Your task to perform on an android device: toggle location history Image 0: 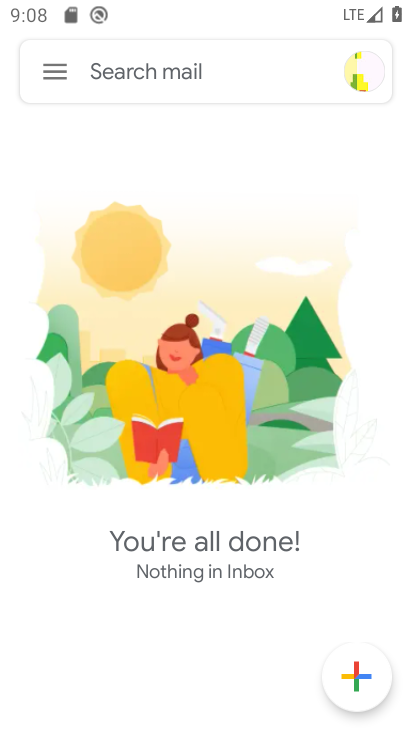
Step 0: press home button
Your task to perform on an android device: toggle location history Image 1: 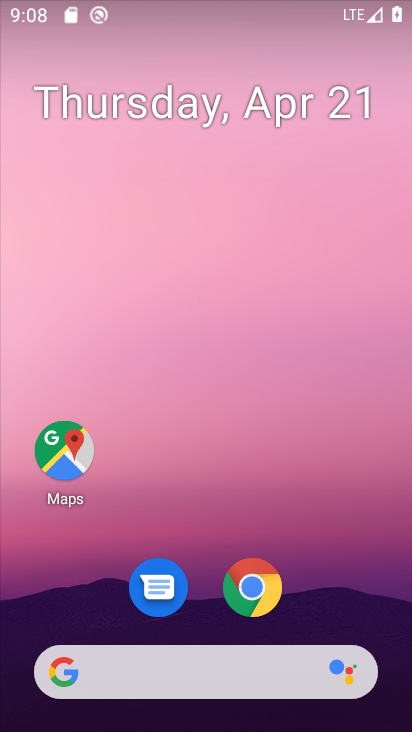
Step 1: drag from (372, 458) to (366, 264)
Your task to perform on an android device: toggle location history Image 2: 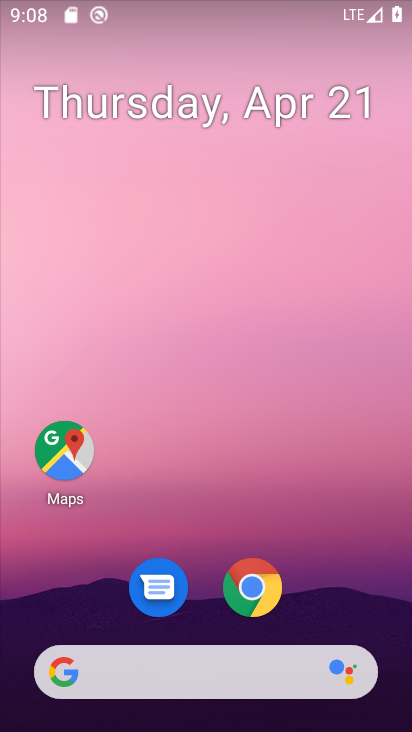
Step 2: drag from (355, 462) to (324, 178)
Your task to perform on an android device: toggle location history Image 3: 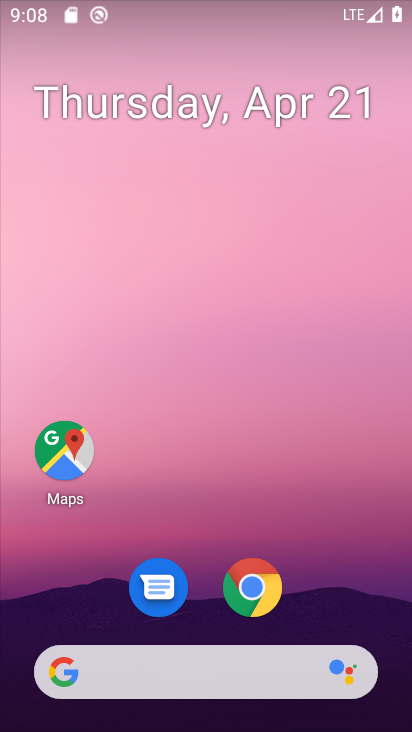
Step 3: click (370, 211)
Your task to perform on an android device: toggle location history Image 4: 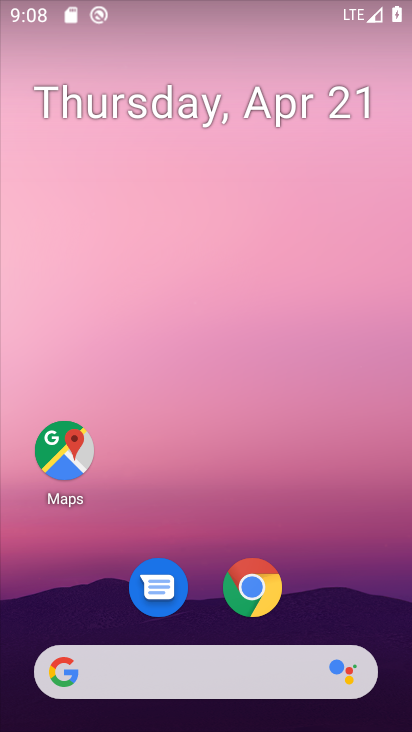
Step 4: drag from (356, 132) to (350, 95)
Your task to perform on an android device: toggle location history Image 5: 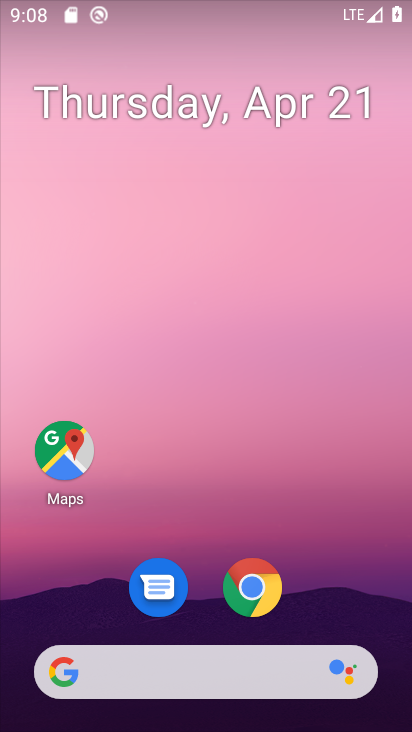
Step 5: drag from (373, 553) to (344, 194)
Your task to perform on an android device: toggle location history Image 6: 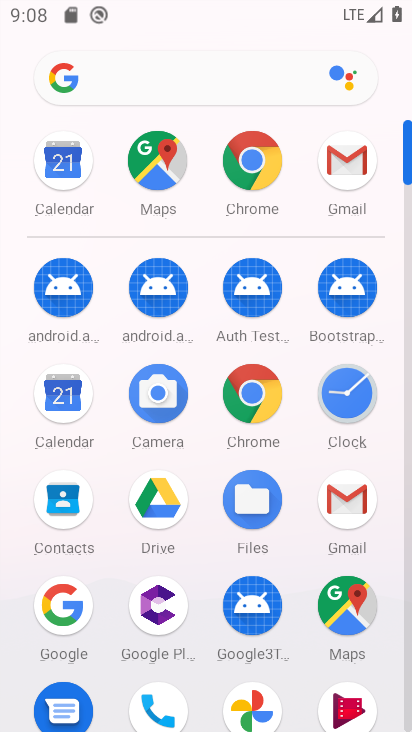
Step 6: drag from (407, 124) to (398, 72)
Your task to perform on an android device: toggle location history Image 7: 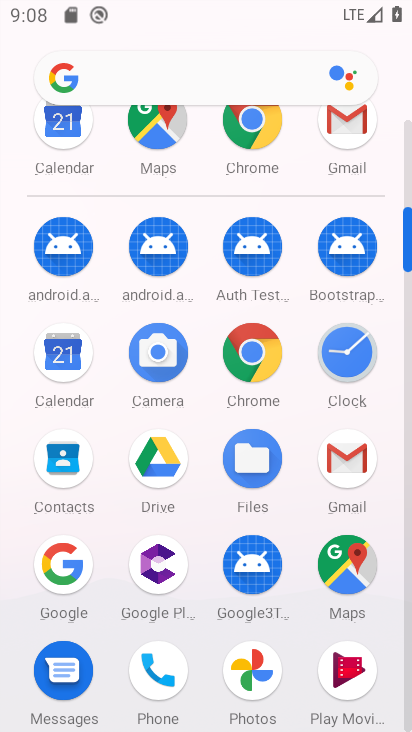
Step 7: drag from (407, 220) to (391, 134)
Your task to perform on an android device: toggle location history Image 8: 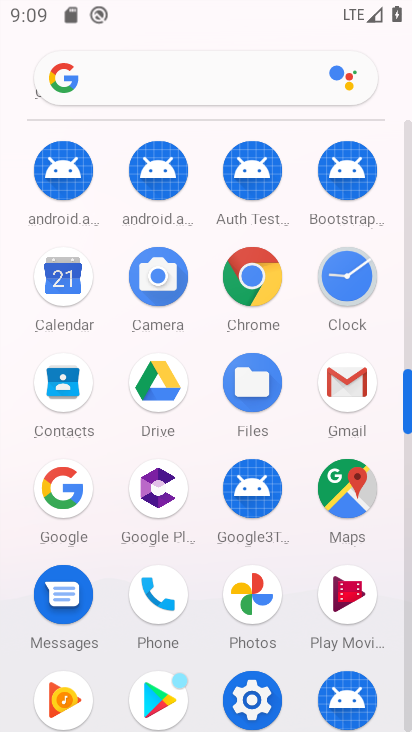
Step 8: click (250, 688)
Your task to perform on an android device: toggle location history Image 9: 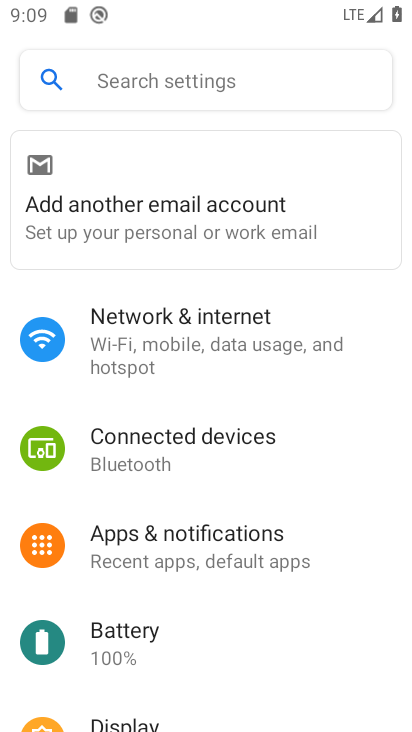
Step 9: drag from (372, 640) to (351, 258)
Your task to perform on an android device: toggle location history Image 10: 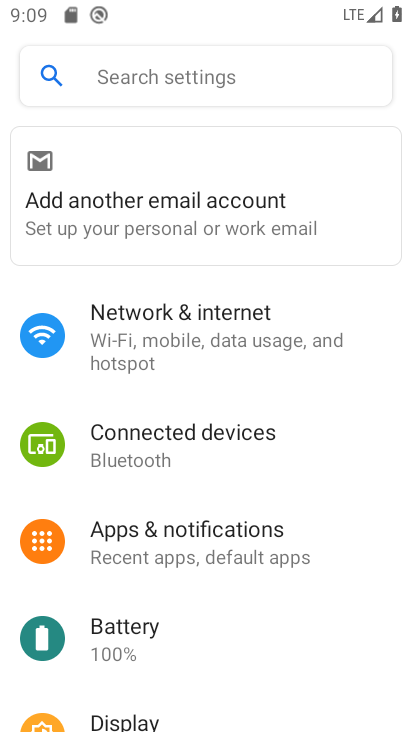
Step 10: drag from (354, 475) to (364, 308)
Your task to perform on an android device: toggle location history Image 11: 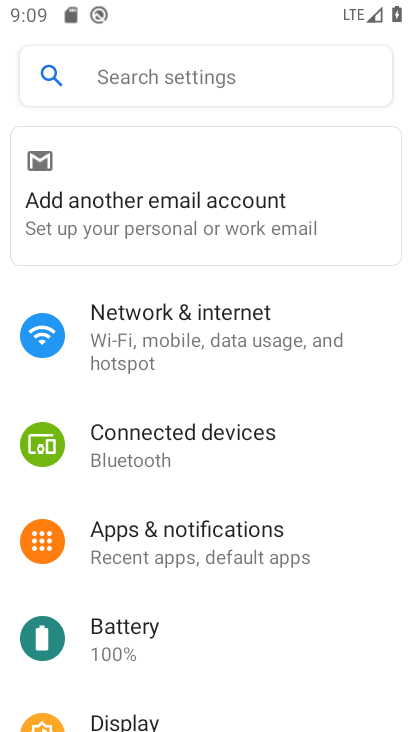
Step 11: drag from (353, 684) to (384, 234)
Your task to perform on an android device: toggle location history Image 12: 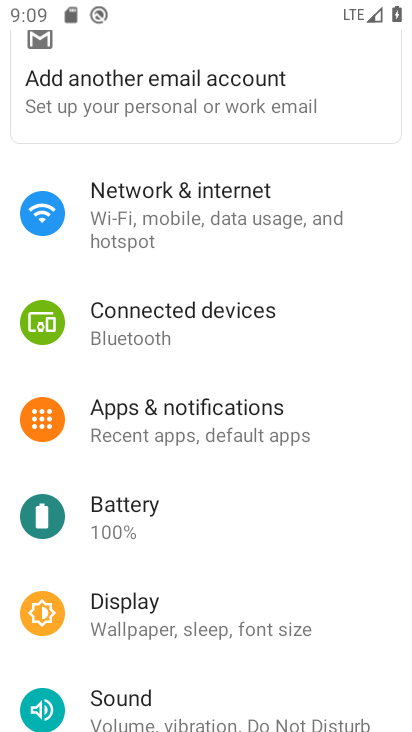
Step 12: drag from (372, 616) to (379, 243)
Your task to perform on an android device: toggle location history Image 13: 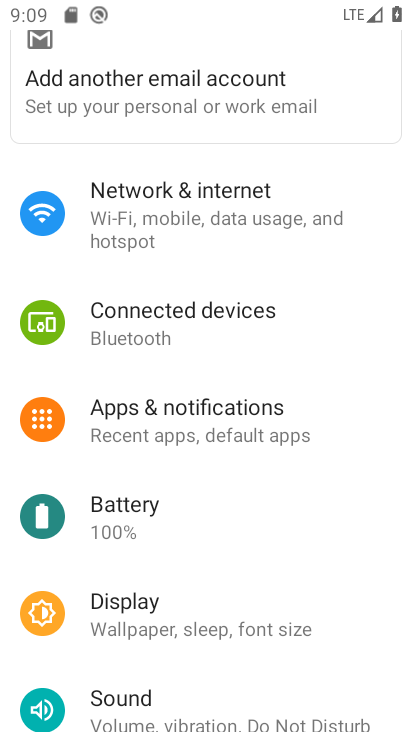
Step 13: drag from (372, 556) to (362, 291)
Your task to perform on an android device: toggle location history Image 14: 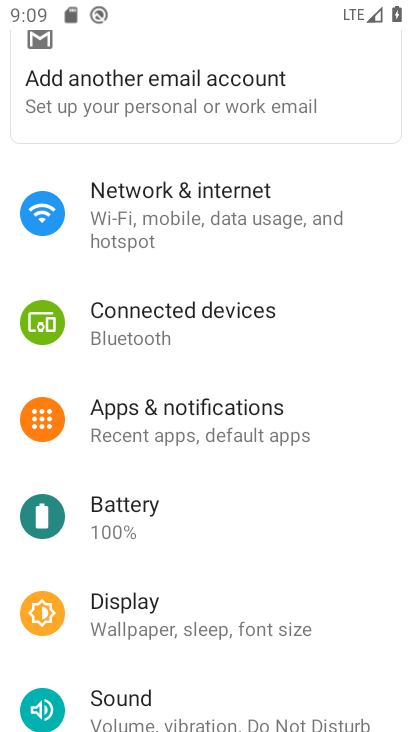
Step 14: drag from (388, 678) to (387, 311)
Your task to perform on an android device: toggle location history Image 15: 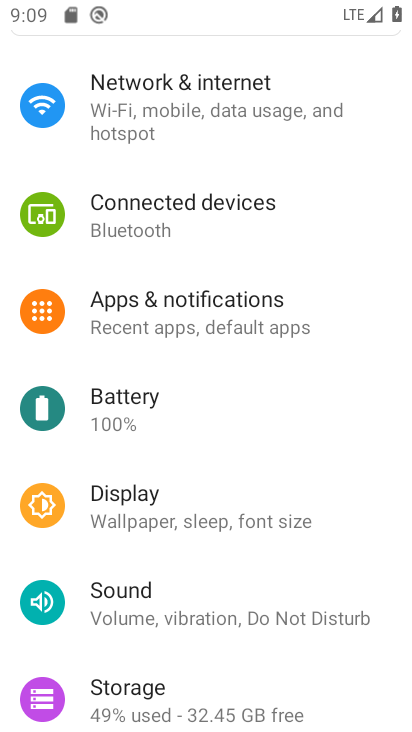
Step 15: drag from (373, 583) to (361, 226)
Your task to perform on an android device: toggle location history Image 16: 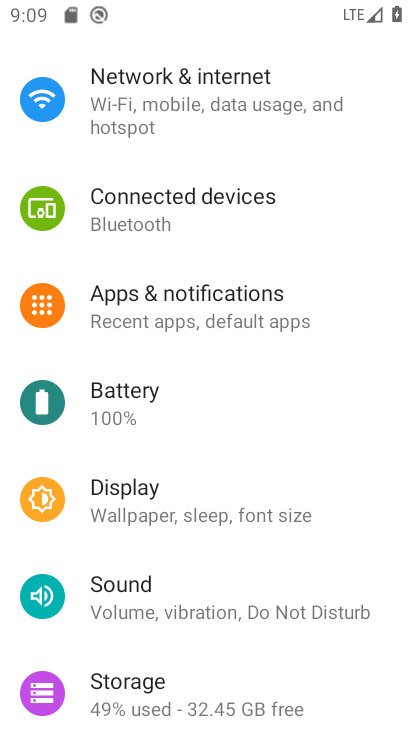
Step 16: drag from (396, 630) to (407, 177)
Your task to perform on an android device: toggle location history Image 17: 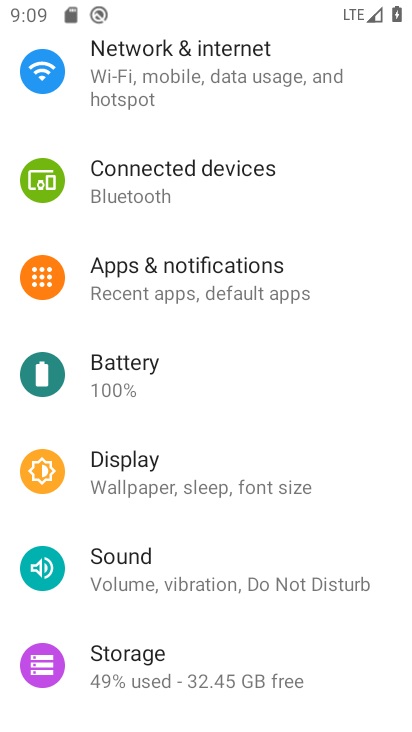
Step 17: drag from (385, 686) to (377, 262)
Your task to perform on an android device: toggle location history Image 18: 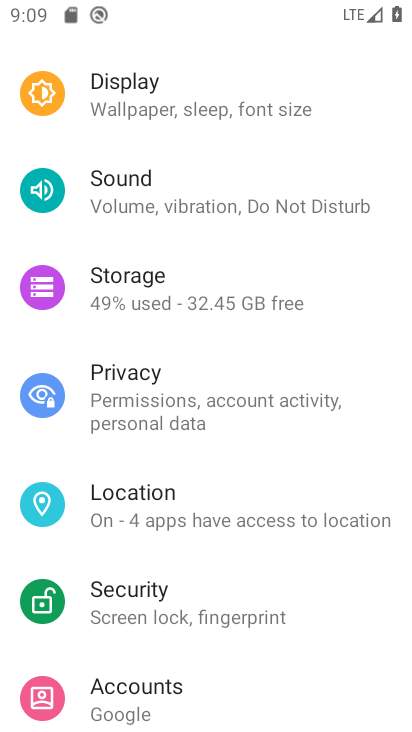
Step 18: click (115, 506)
Your task to perform on an android device: toggle location history Image 19: 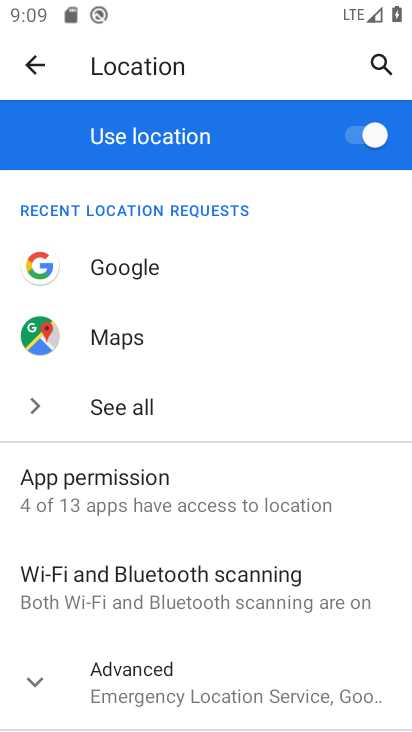
Step 19: click (34, 685)
Your task to perform on an android device: toggle location history Image 20: 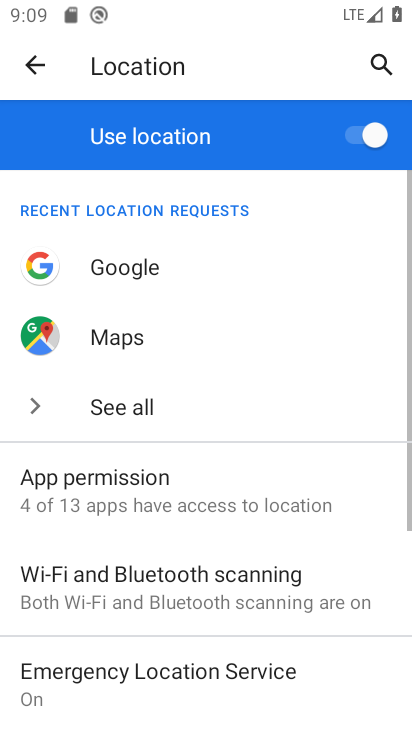
Step 20: drag from (368, 635) to (367, 267)
Your task to perform on an android device: toggle location history Image 21: 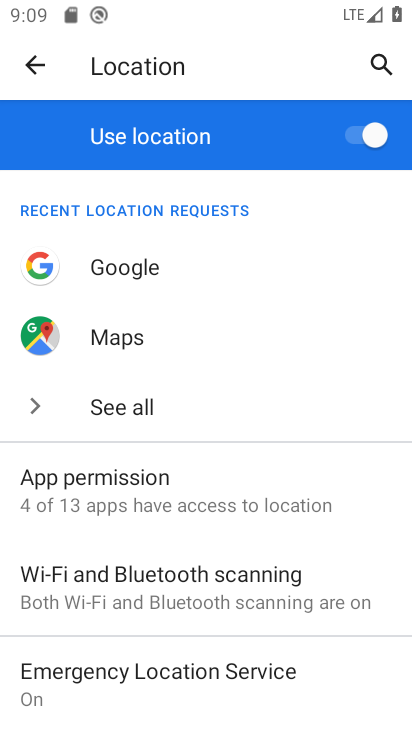
Step 21: click (381, 271)
Your task to perform on an android device: toggle location history Image 22: 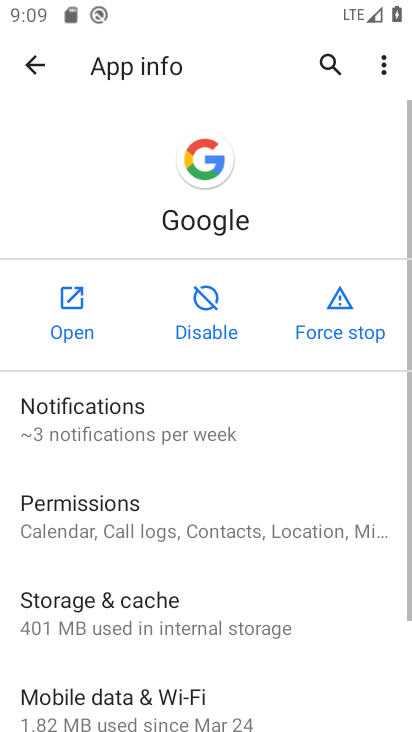
Step 22: drag from (371, 414) to (365, 331)
Your task to perform on an android device: toggle location history Image 23: 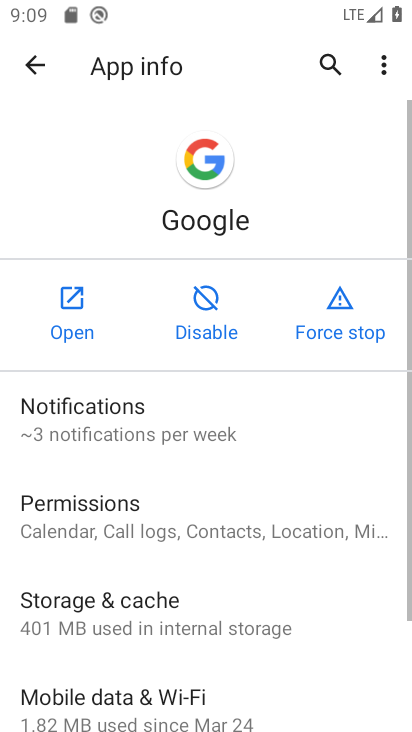
Step 23: click (39, 68)
Your task to perform on an android device: toggle location history Image 24: 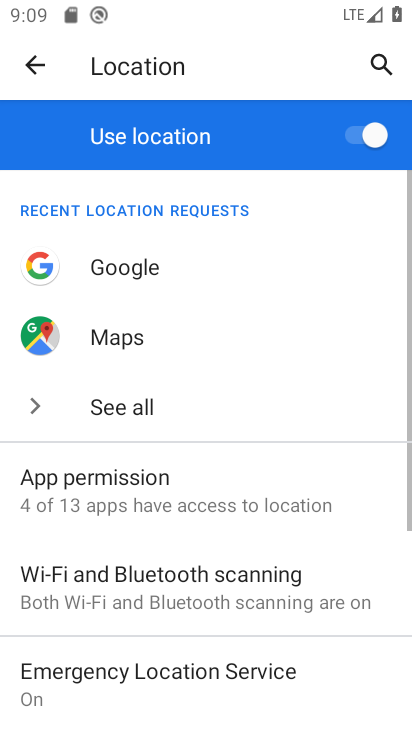
Step 24: drag from (341, 666) to (373, 257)
Your task to perform on an android device: toggle location history Image 25: 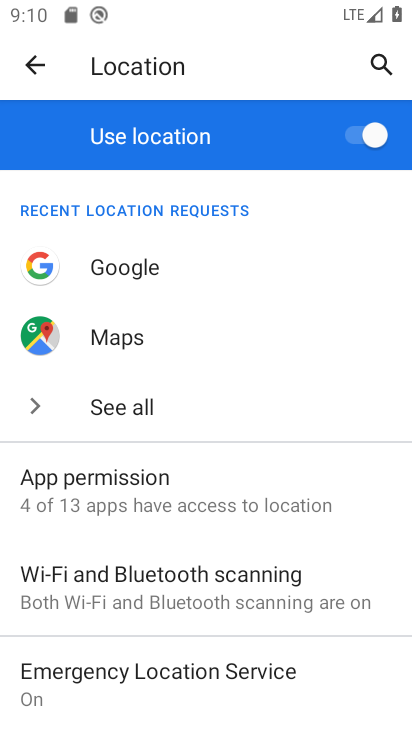
Step 25: drag from (349, 661) to (329, 311)
Your task to perform on an android device: toggle location history Image 26: 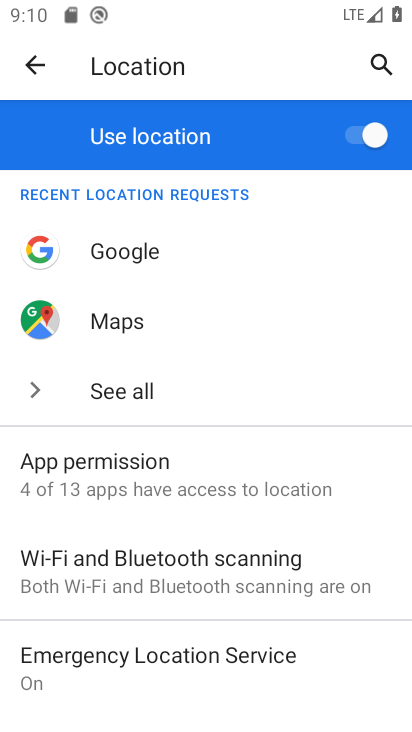
Step 26: drag from (365, 692) to (370, 308)
Your task to perform on an android device: toggle location history Image 27: 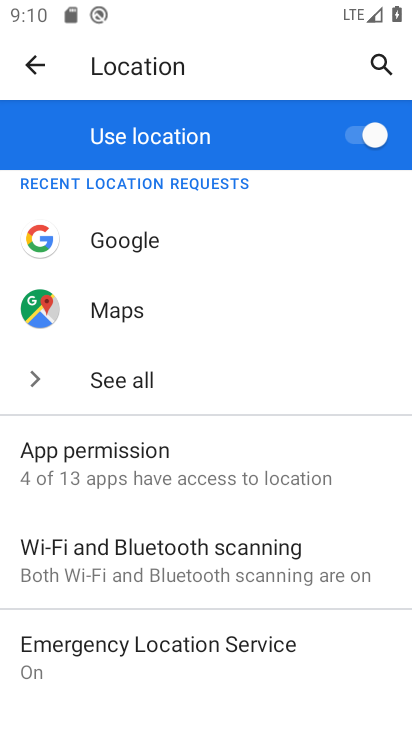
Step 27: drag from (341, 637) to (355, 289)
Your task to perform on an android device: toggle location history Image 28: 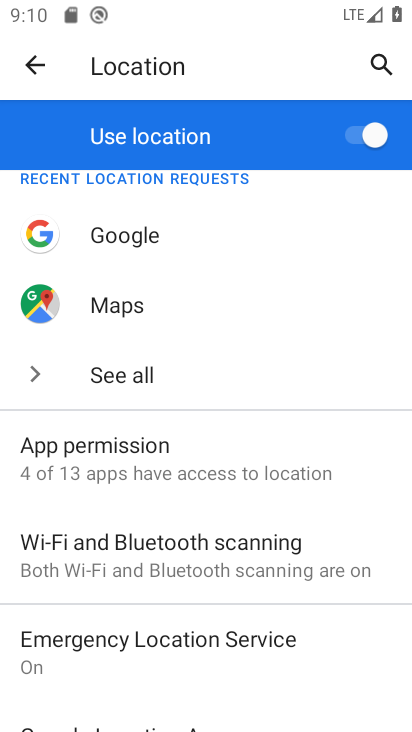
Step 28: drag from (376, 375) to (372, 232)
Your task to perform on an android device: toggle location history Image 29: 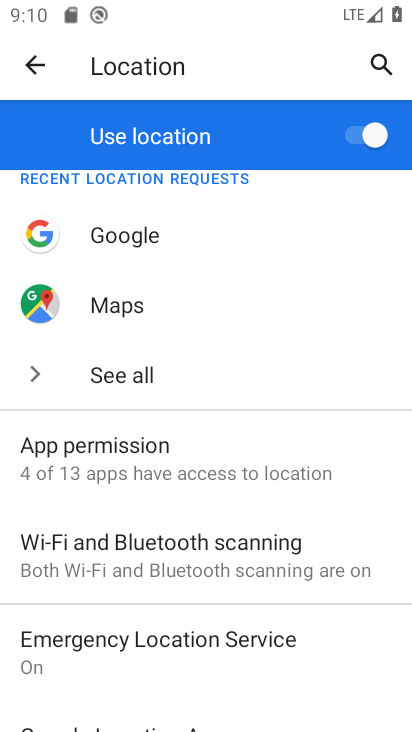
Step 29: drag from (358, 504) to (361, 333)
Your task to perform on an android device: toggle location history Image 30: 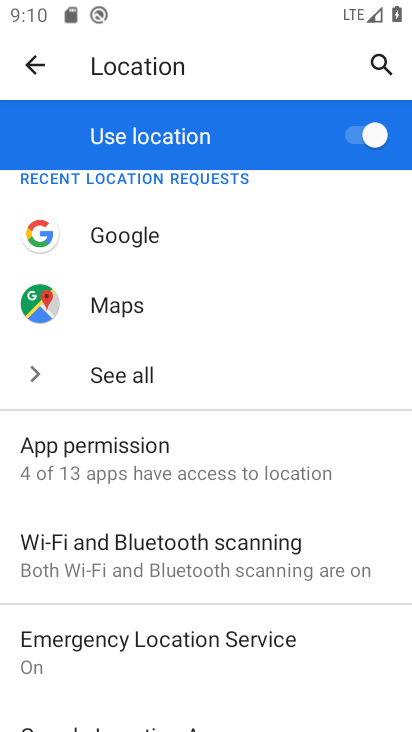
Step 30: drag from (365, 546) to (358, 242)
Your task to perform on an android device: toggle location history Image 31: 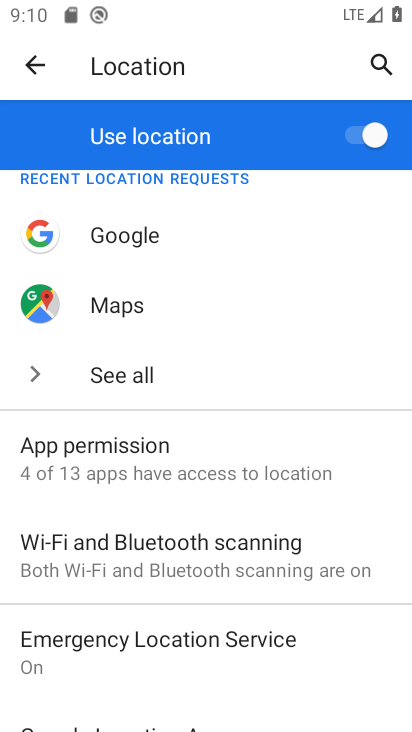
Step 31: drag from (392, 567) to (396, 320)
Your task to perform on an android device: toggle location history Image 32: 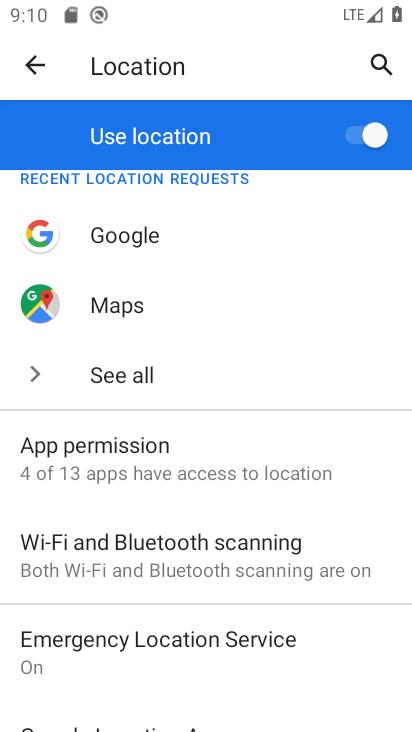
Step 32: drag from (351, 363) to (342, 241)
Your task to perform on an android device: toggle location history Image 33: 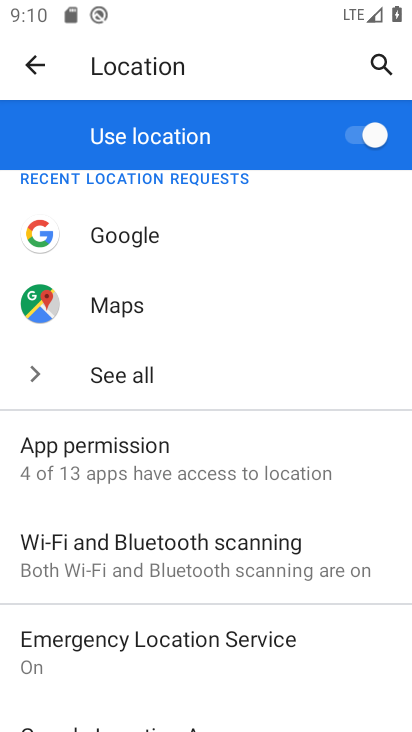
Step 33: drag from (346, 540) to (333, 306)
Your task to perform on an android device: toggle location history Image 34: 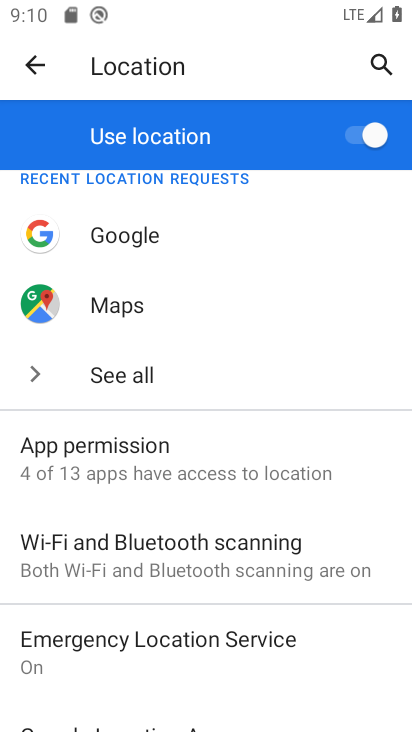
Step 34: drag from (336, 456) to (338, 293)
Your task to perform on an android device: toggle location history Image 35: 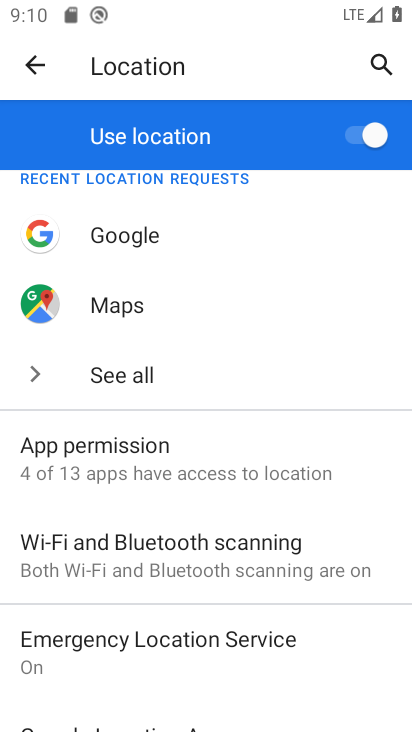
Step 35: drag from (372, 671) to (360, 195)
Your task to perform on an android device: toggle location history Image 36: 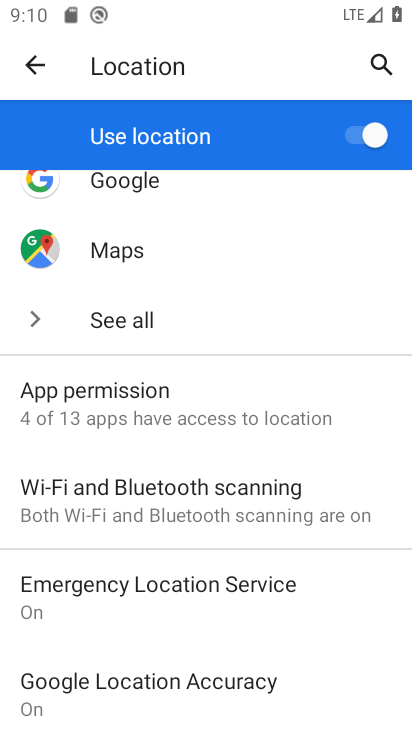
Step 36: drag from (339, 622) to (338, 345)
Your task to perform on an android device: toggle location history Image 37: 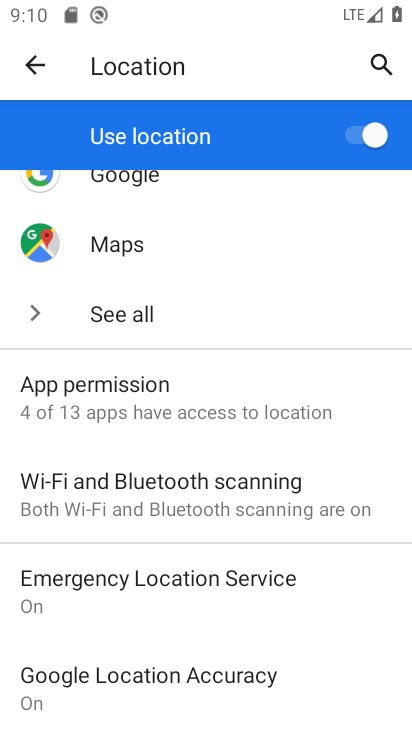
Step 37: drag from (333, 541) to (340, 199)
Your task to perform on an android device: toggle location history Image 38: 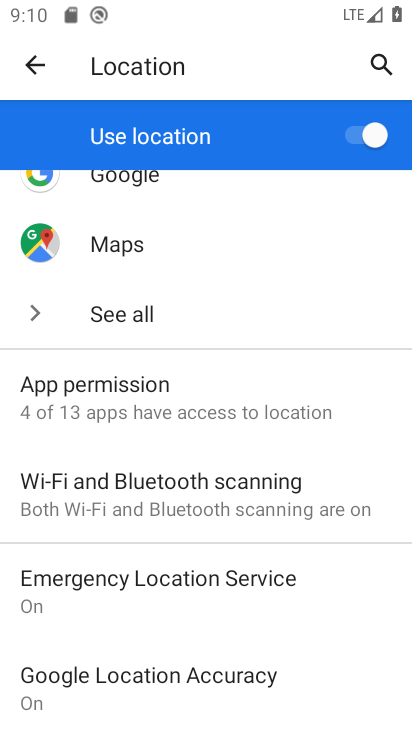
Step 38: drag from (357, 675) to (344, 325)
Your task to perform on an android device: toggle location history Image 39: 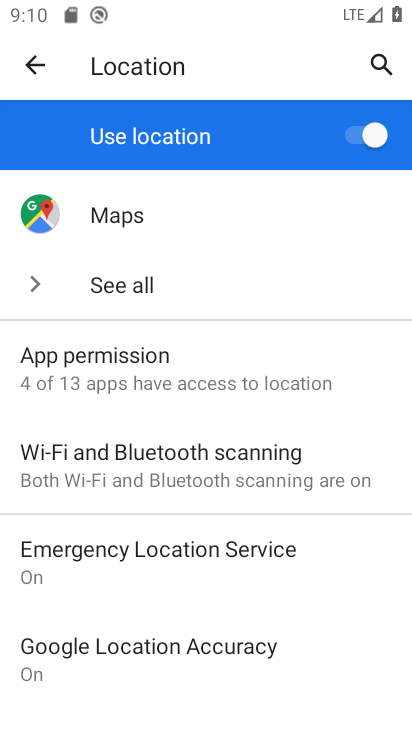
Step 39: drag from (368, 341) to (366, 265)
Your task to perform on an android device: toggle location history Image 40: 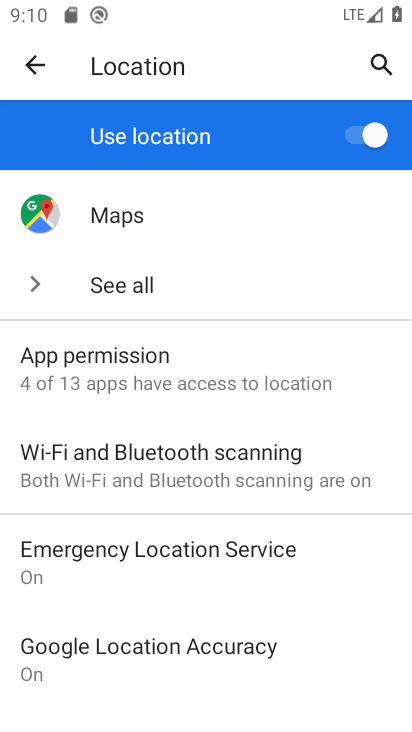
Step 40: drag from (353, 333) to (340, 244)
Your task to perform on an android device: toggle location history Image 41: 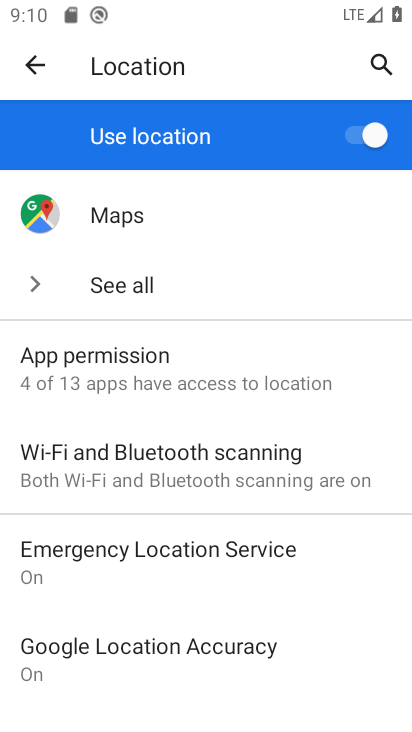
Step 41: drag from (346, 698) to (337, 297)
Your task to perform on an android device: toggle location history Image 42: 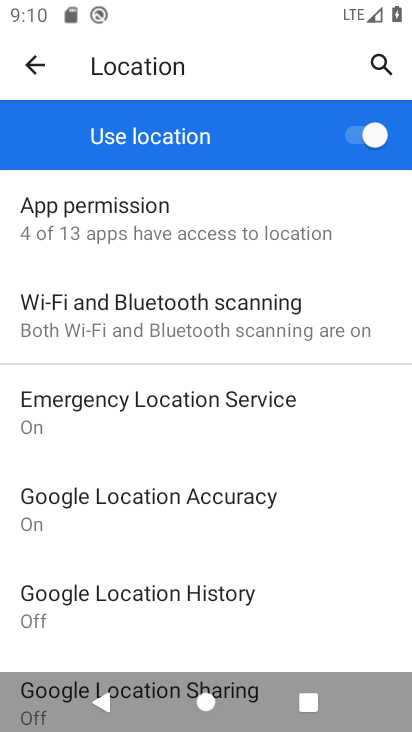
Step 42: drag from (360, 642) to (356, 362)
Your task to perform on an android device: toggle location history Image 43: 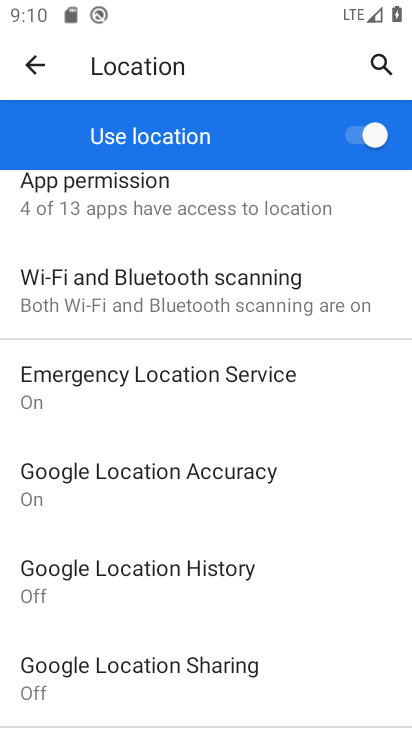
Step 43: click (97, 566)
Your task to perform on an android device: toggle location history Image 44: 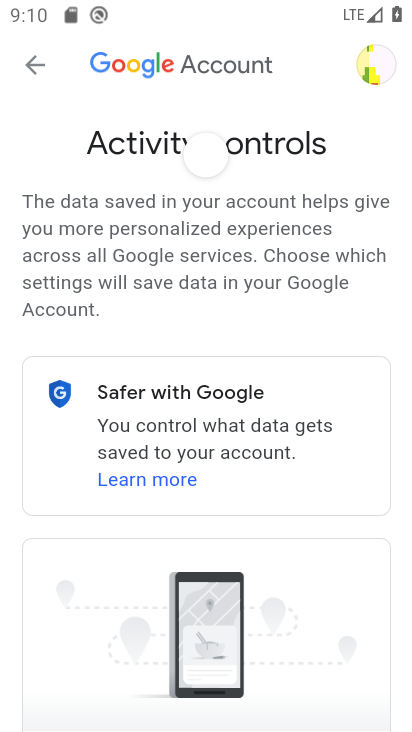
Step 44: drag from (345, 342) to (336, 262)
Your task to perform on an android device: toggle location history Image 45: 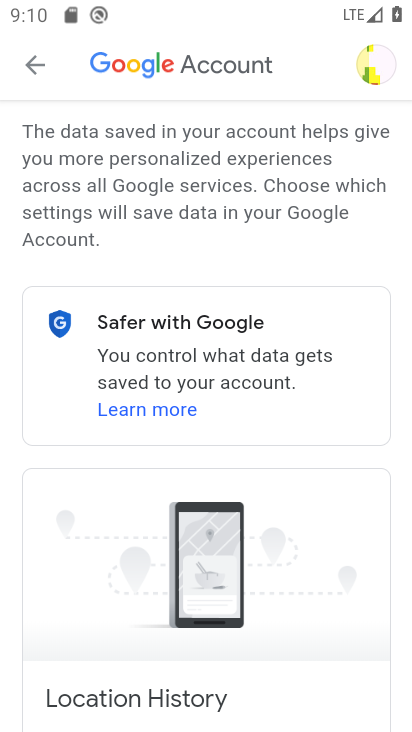
Step 45: drag from (322, 663) to (317, 305)
Your task to perform on an android device: toggle location history Image 46: 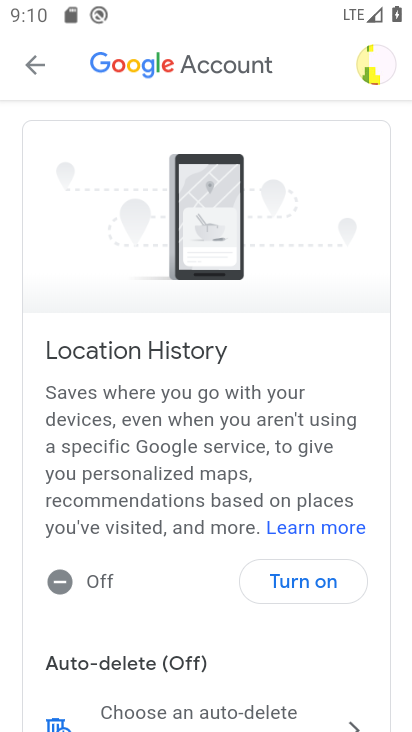
Step 46: click (287, 580)
Your task to perform on an android device: toggle location history Image 47: 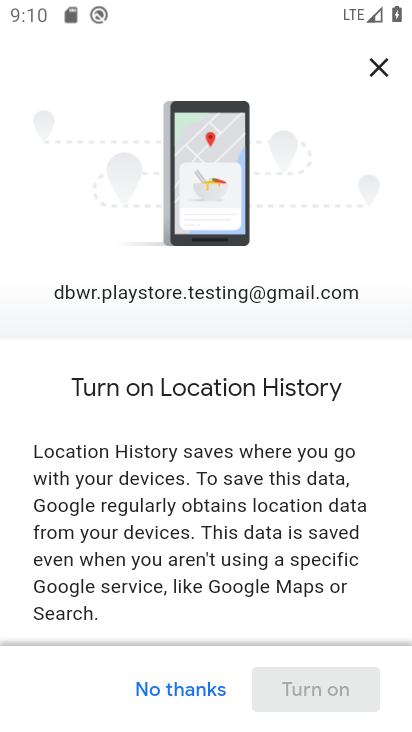
Step 47: drag from (229, 590) to (242, 229)
Your task to perform on an android device: toggle location history Image 48: 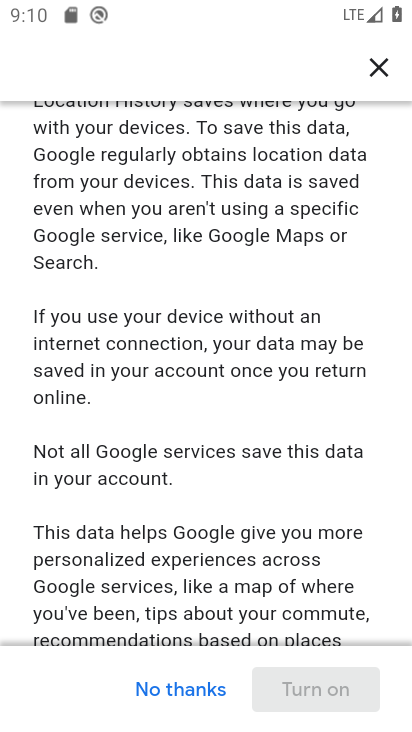
Step 48: drag from (251, 567) to (267, 252)
Your task to perform on an android device: toggle location history Image 49: 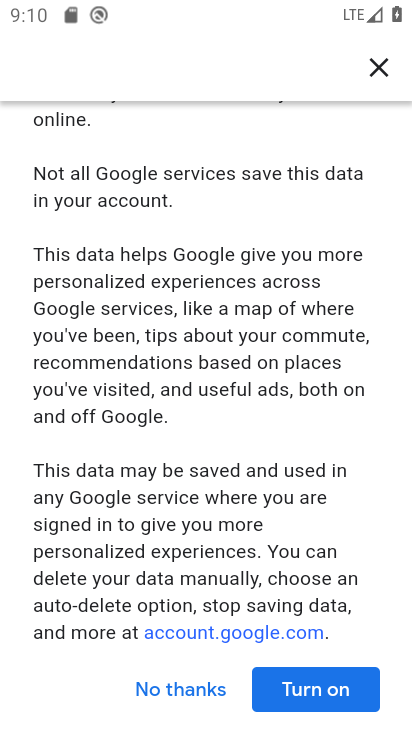
Step 49: click (285, 680)
Your task to perform on an android device: toggle location history Image 50: 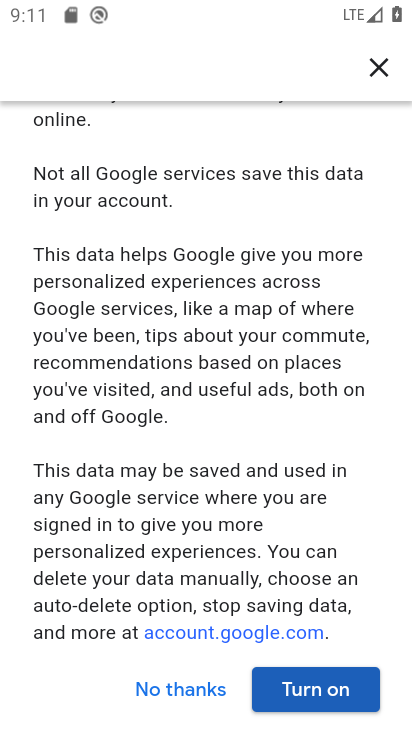
Step 50: click (315, 693)
Your task to perform on an android device: toggle location history Image 51: 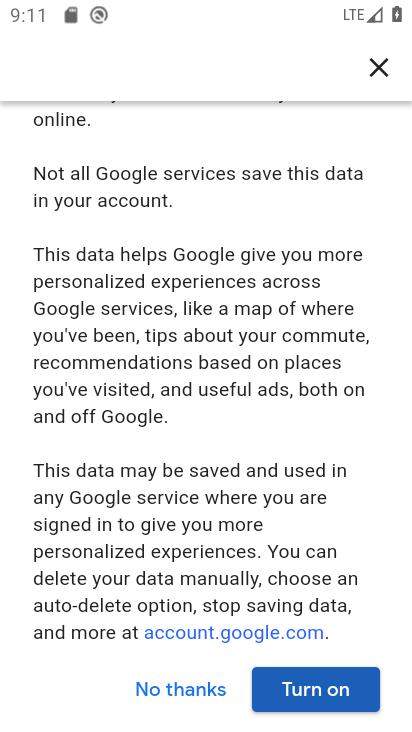
Step 51: click (314, 684)
Your task to perform on an android device: toggle location history Image 52: 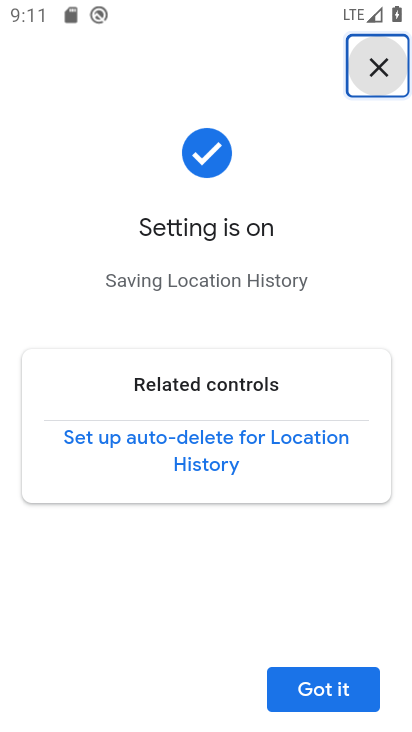
Step 52: task complete